Your task to perform on an android device: find snoozed emails in the gmail app Image 0: 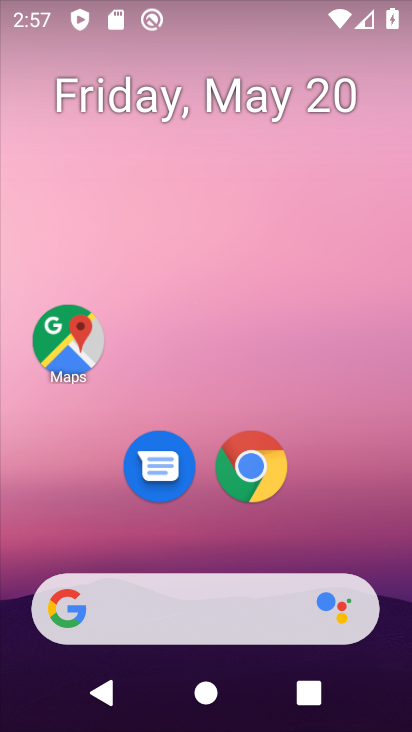
Step 0: drag from (194, 564) to (188, 164)
Your task to perform on an android device: find snoozed emails in the gmail app Image 1: 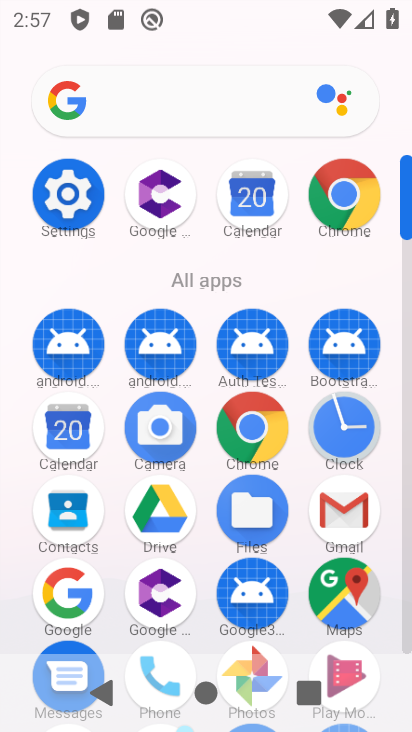
Step 1: click (331, 518)
Your task to perform on an android device: find snoozed emails in the gmail app Image 2: 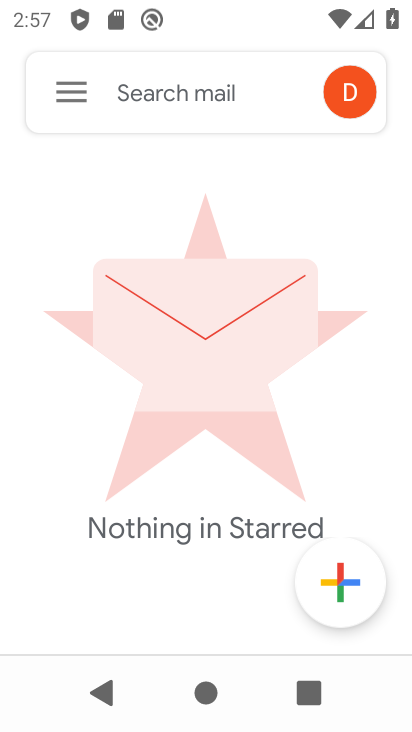
Step 2: click (72, 89)
Your task to perform on an android device: find snoozed emails in the gmail app Image 3: 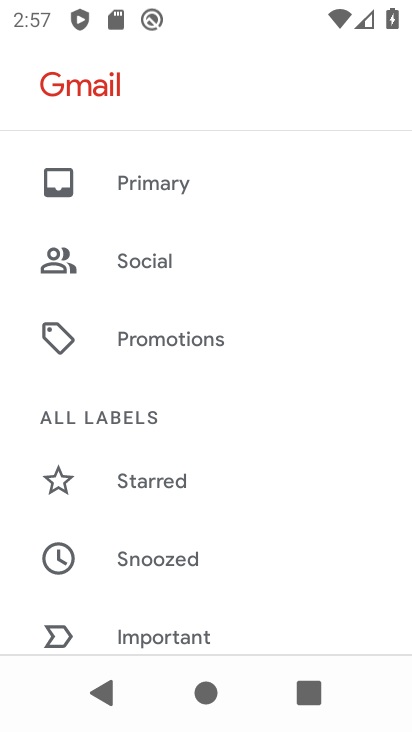
Step 3: click (171, 555)
Your task to perform on an android device: find snoozed emails in the gmail app Image 4: 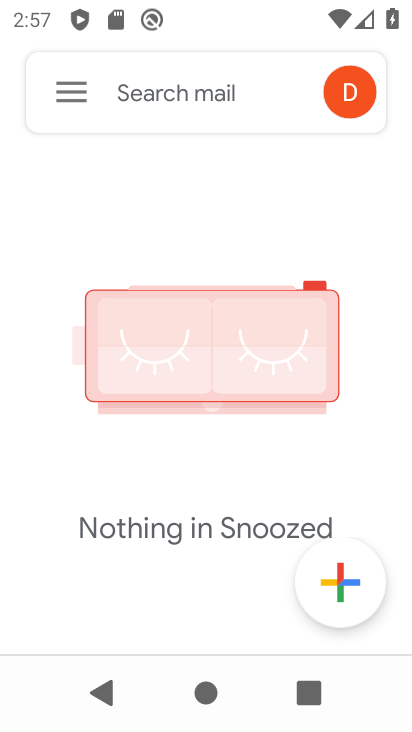
Step 4: task complete